Your task to perform on an android device: Show me productivity apps on the Play Store Image 0: 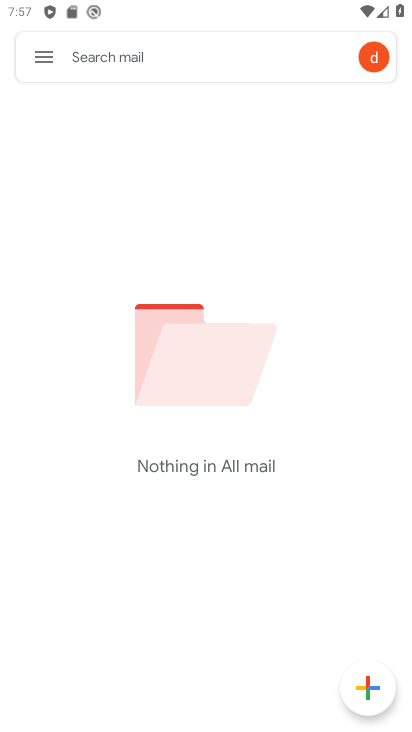
Step 0: press home button
Your task to perform on an android device: Show me productivity apps on the Play Store Image 1: 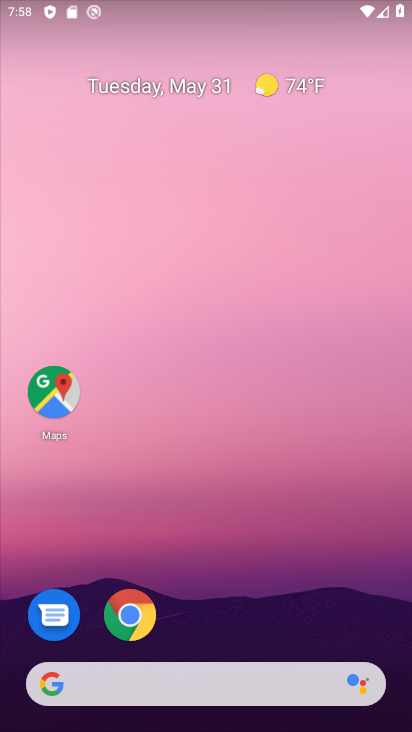
Step 1: drag from (213, 631) to (226, 155)
Your task to perform on an android device: Show me productivity apps on the Play Store Image 2: 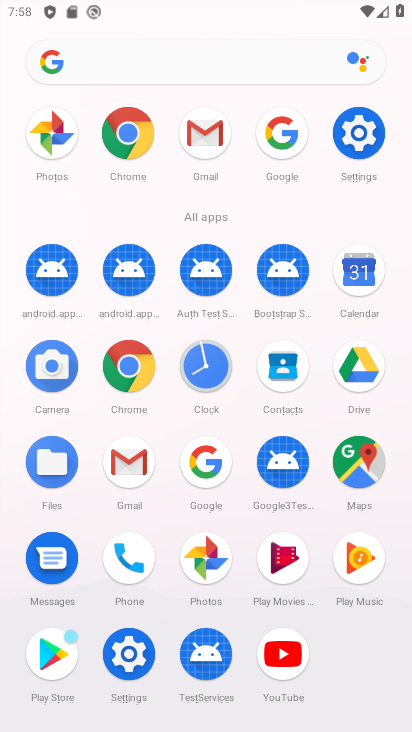
Step 2: click (68, 664)
Your task to perform on an android device: Show me productivity apps on the Play Store Image 3: 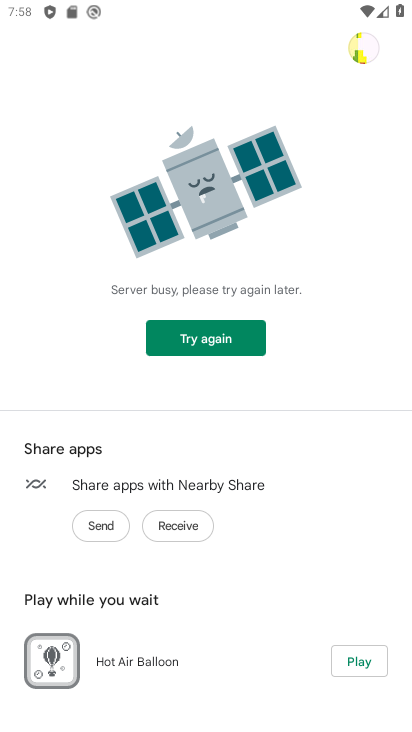
Step 3: click (191, 324)
Your task to perform on an android device: Show me productivity apps on the Play Store Image 4: 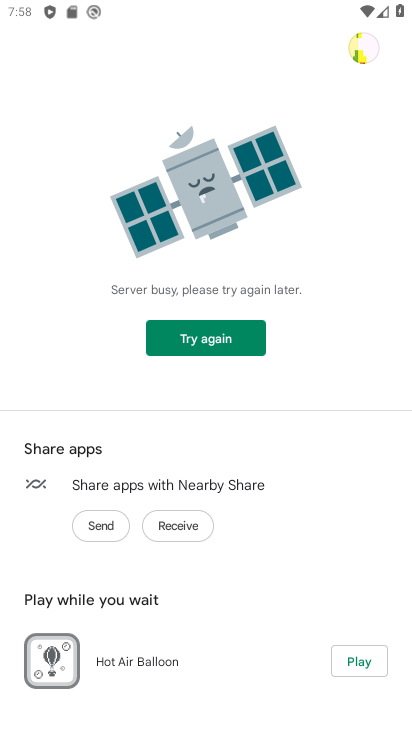
Step 4: click (191, 324)
Your task to perform on an android device: Show me productivity apps on the Play Store Image 5: 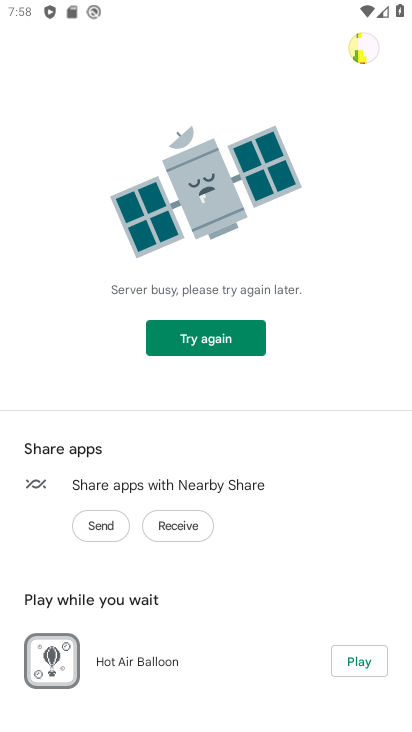
Step 5: click (191, 324)
Your task to perform on an android device: Show me productivity apps on the Play Store Image 6: 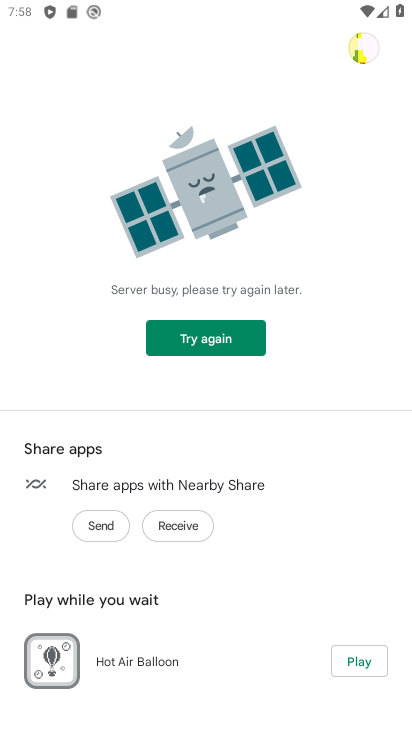
Step 6: press back button
Your task to perform on an android device: Show me productivity apps on the Play Store Image 7: 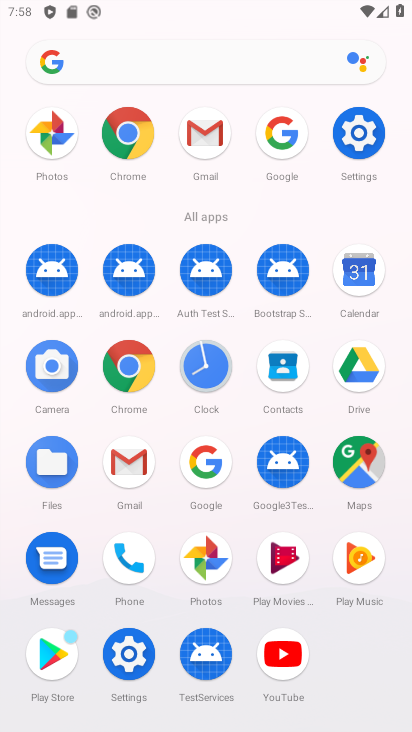
Step 7: click (58, 646)
Your task to perform on an android device: Show me productivity apps on the Play Store Image 8: 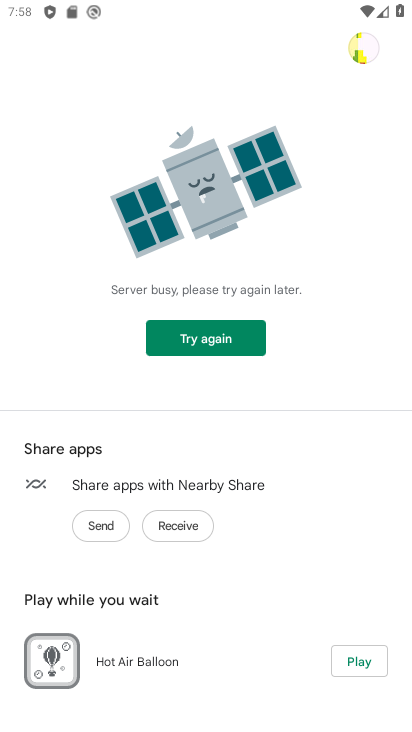
Step 8: task complete